Your task to perform on an android device: Open calendar and show me the third week of next month Image 0: 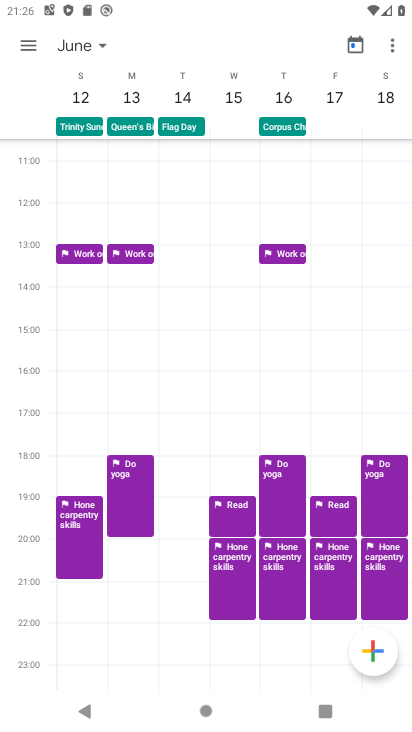
Step 0: press home button
Your task to perform on an android device: Open calendar and show me the third week of next month Image 1: 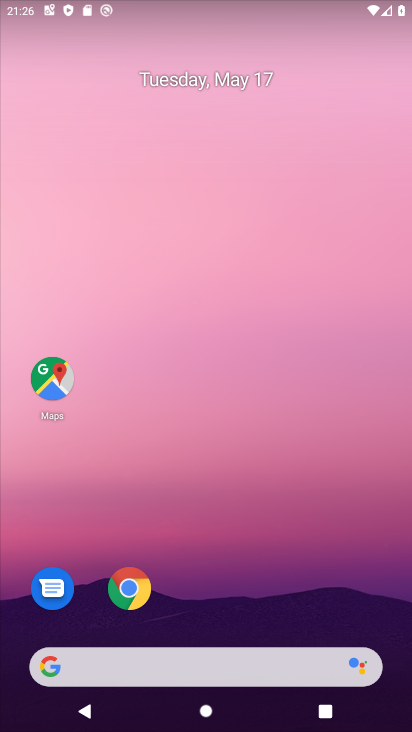
Step 1: drag from (220, 624) to (178, 6)
Your task to perform on an android device: Open calendar and show me the third week of next month Image 2: 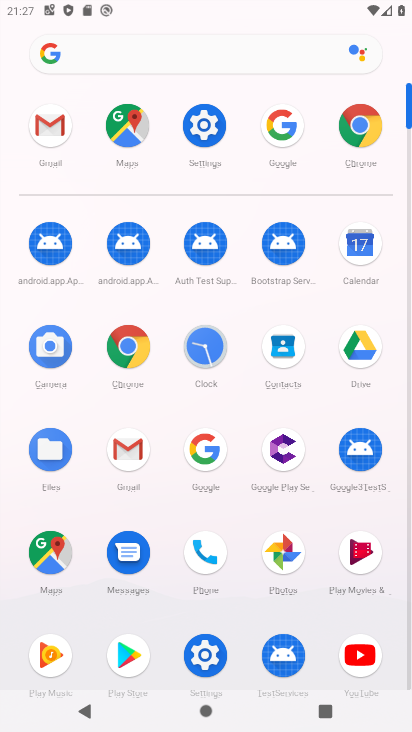
Step 2: click (356, 249)
Your task to perform on an android device: Open calendar and show me the third week of next month Image 3: 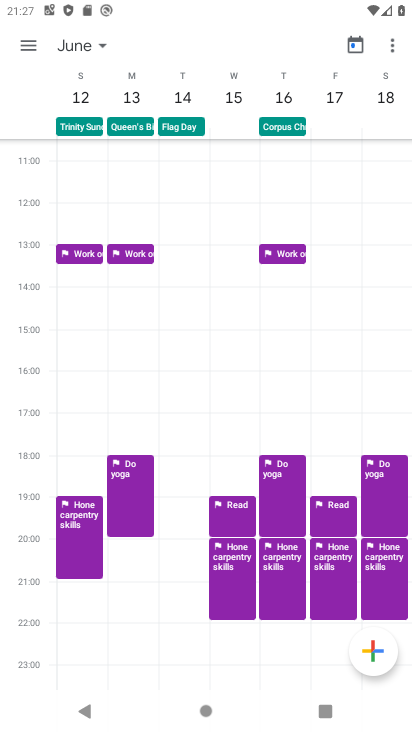
Step 3: task complete